Your task to perform on an android device: install app "Google Sheets" Image 0: 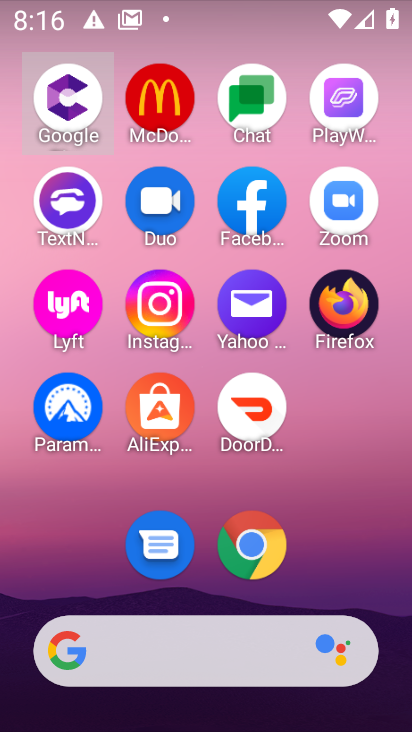
Step 0: press home button
Your task to perform on an android device: install app "Google Sheets" Image 1: 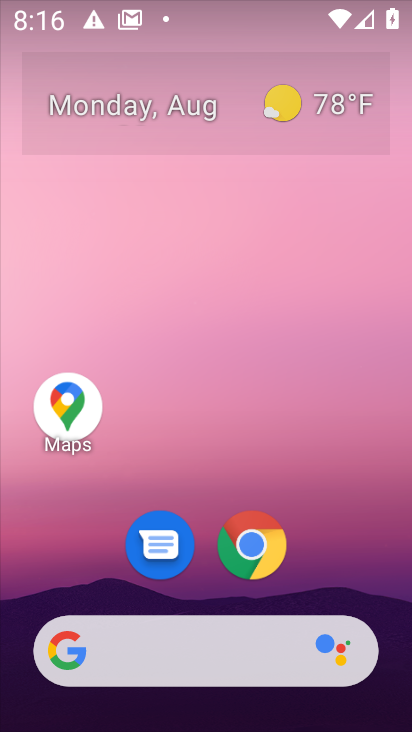
Step 1: drag from (351, 566) to (375, 33)
Your task to perform on an android device: install app "Google Sheets" Image 2: 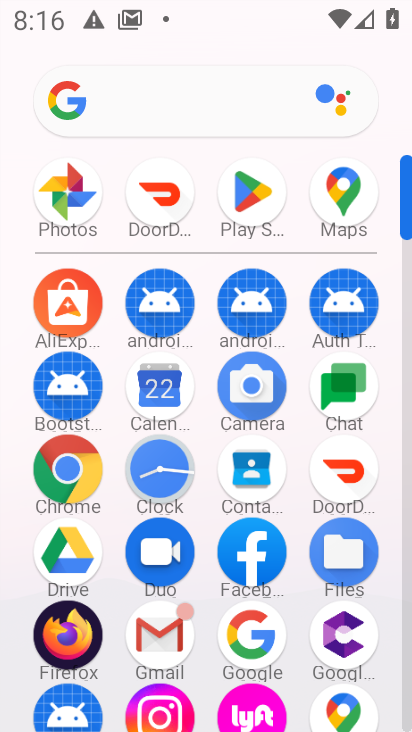
Step 2: click (259, 192)
Your task to perform on an android device: install app "Google Sheets" Image 3: 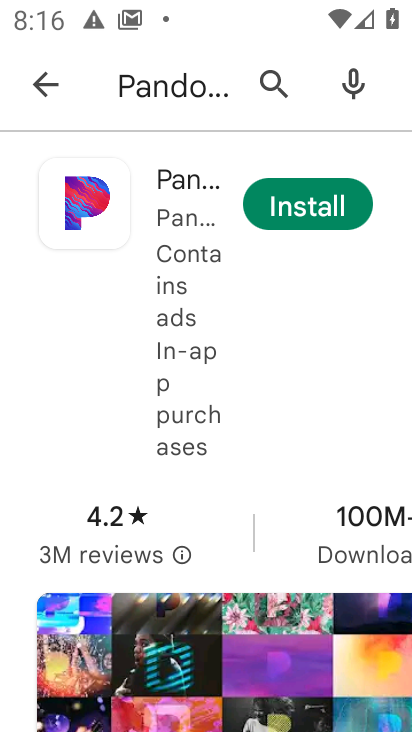
Step 3: press back button
Your task to perform on an android device: install app "Google Sheets" Image 4: 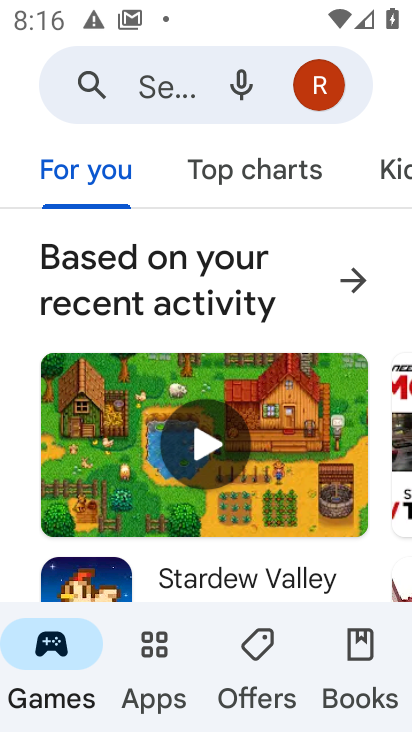
Step 4: click (155, 82)
Your task to perform on an android device: install app "Google Sheets" Image 5: 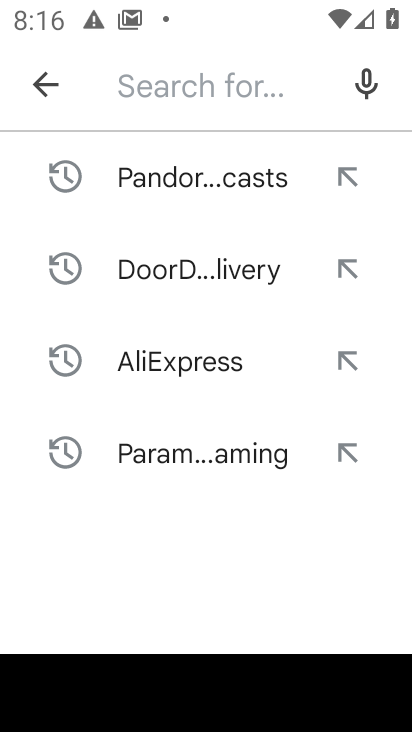
Step 5: type "google sheets"
Your task to perform on an android device: install app "Google Sheets" Image 6: 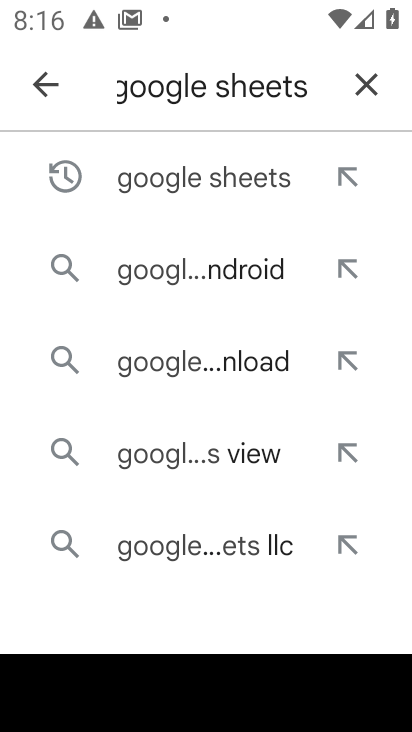
Step 6: click (250, 174)
Your task to perform on an android device: install app "Google Sheets" Image 7: 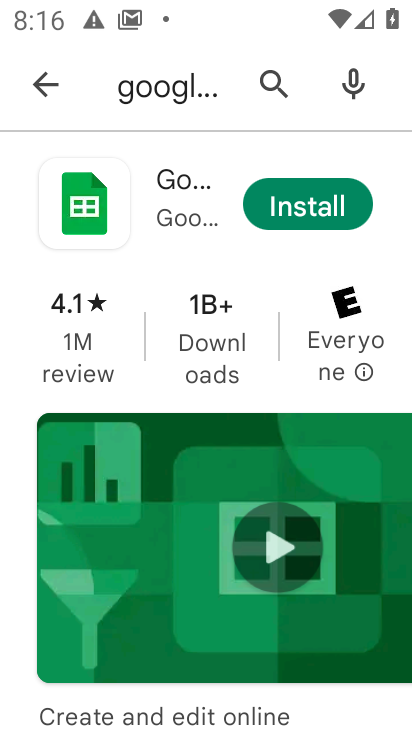
Step 7: click (329, 206)
Your task to perform on an android device: install app "Google Sheets" Image 8: 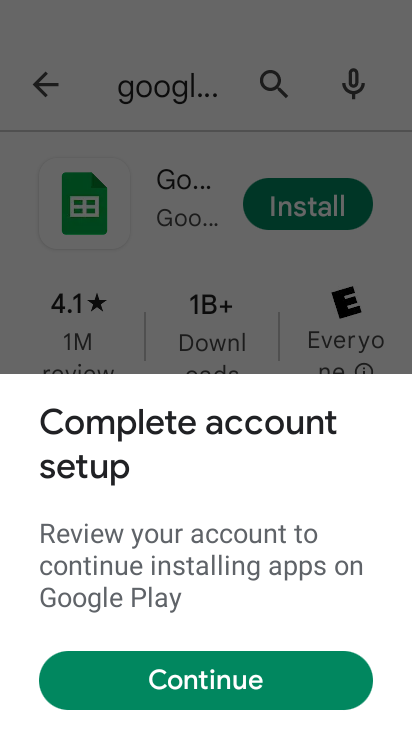
Step 8: click (272, 686)
Your task to perform on an android device: install app "Google Sheets" Image 9: 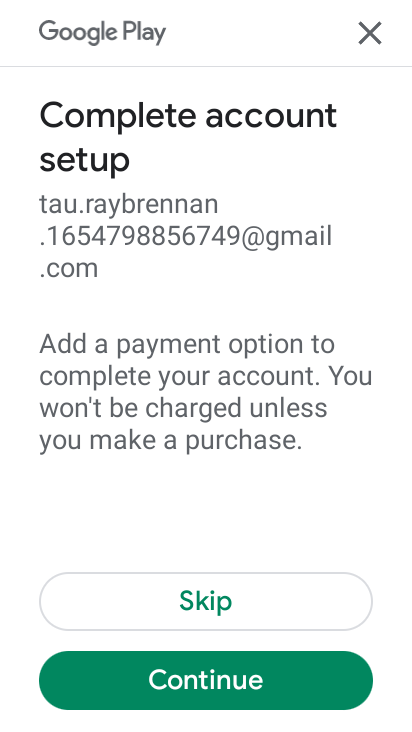
Step 9: click (277, 606)
Your task to perform on an android device: install app "Google Sheets" Image 10: 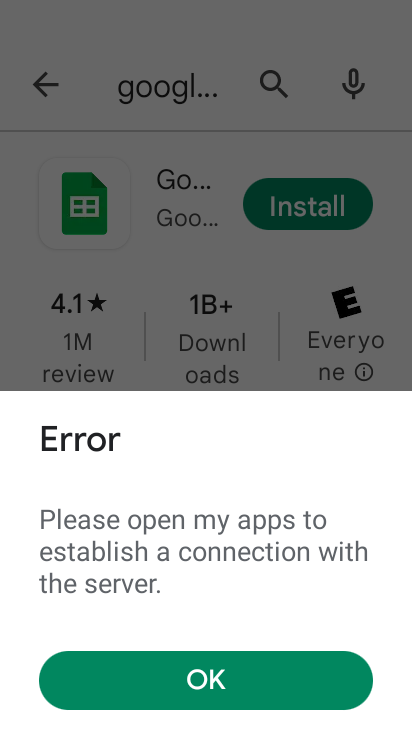
Step 10: task complete